Your task to perform on an android device: Open Google Maps Image 0: 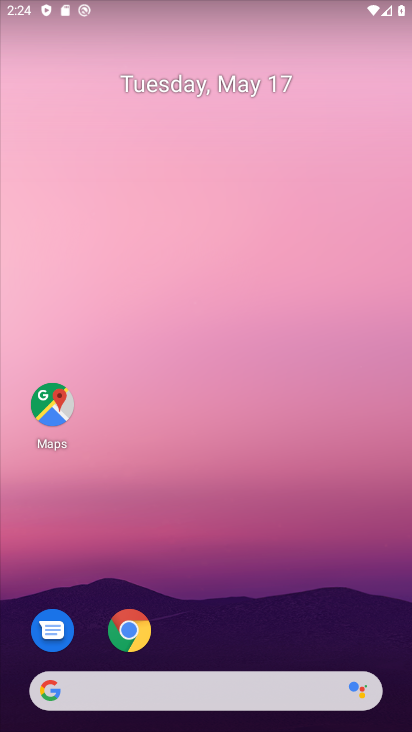
Step 0: click (53, 392)
Your task to perform on an android device: Open Google Maps Image 1: 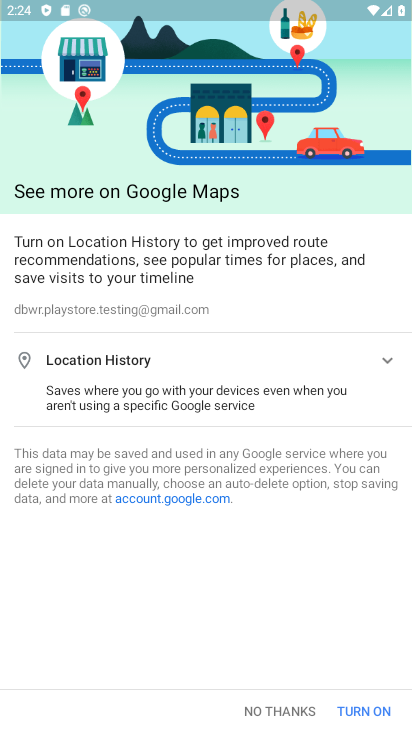
Step 1: click (367, 706)
Your task to perform on an android device: Open Google Maps Image 2: 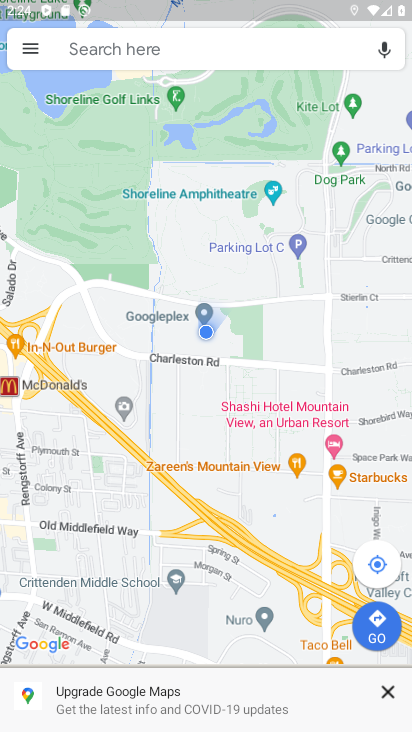
Step 2: task complete